Your task to perform on an android device: turn on improve location accuracy Image 0: 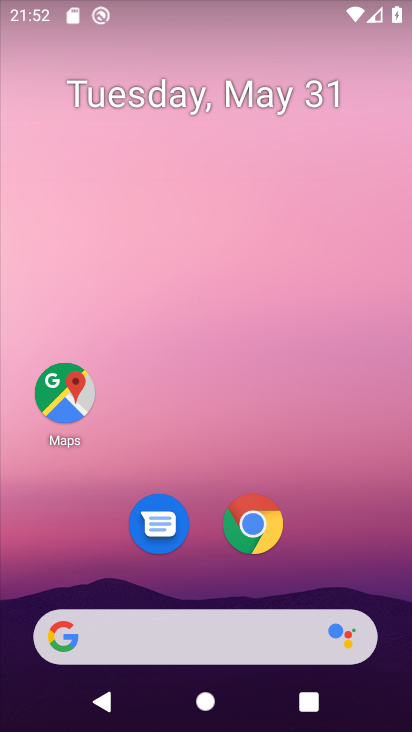
Step 0: drag from (327, 553) to (295, 30)
Your task to perform on an android device: turn on improve location accuracy Image 1: 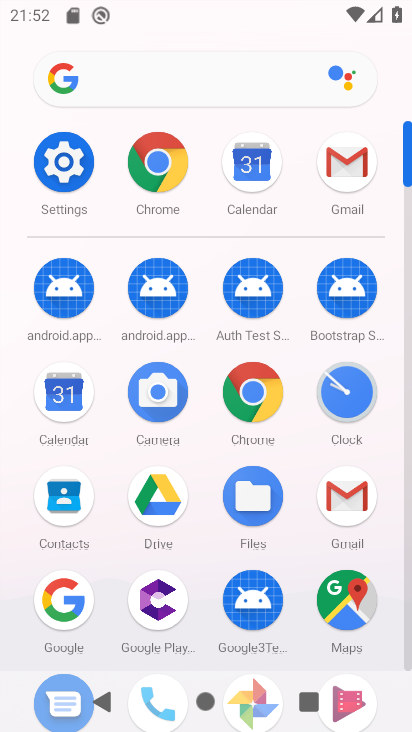
Step 1: click (71, 147)
Your task to perform on an android device: turn on improve location accuracy Image 2: 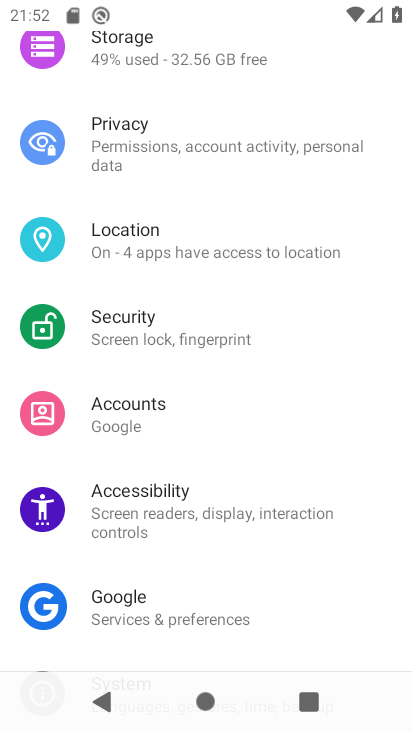
Step 2: drag from (249, 106) to (236, 226)
Your task to perform on an android device: turn on improve location accuracy Image 3: 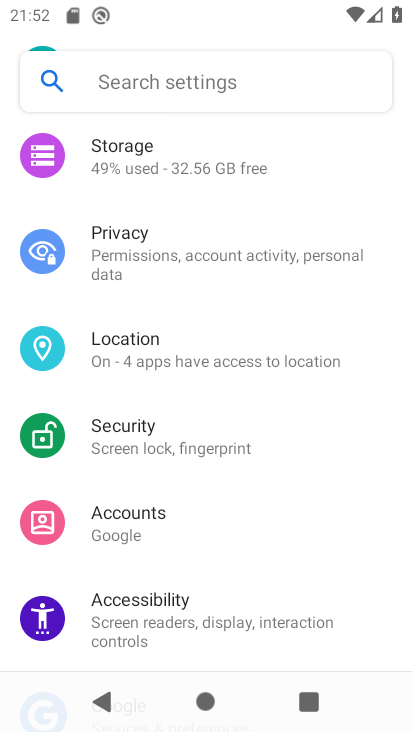
Step 3: click (202, 347)
Your task to perform on an android device: turn on improve location accuracy Image 4: 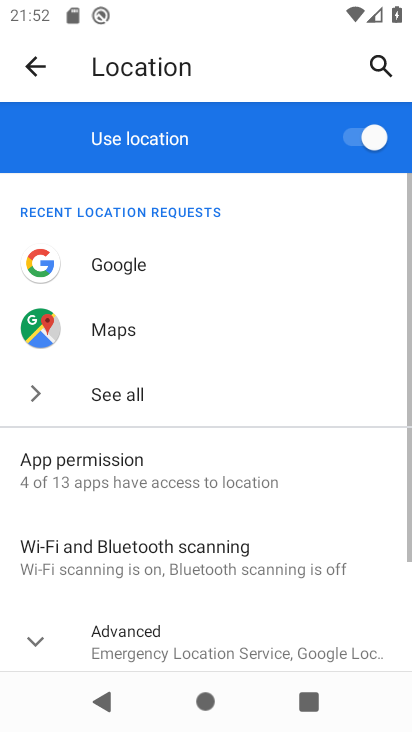
Step 4: drag from (235, 324) to (248, 110)
Your task to perform on an android device: turn on improve location accuracy Image 5: 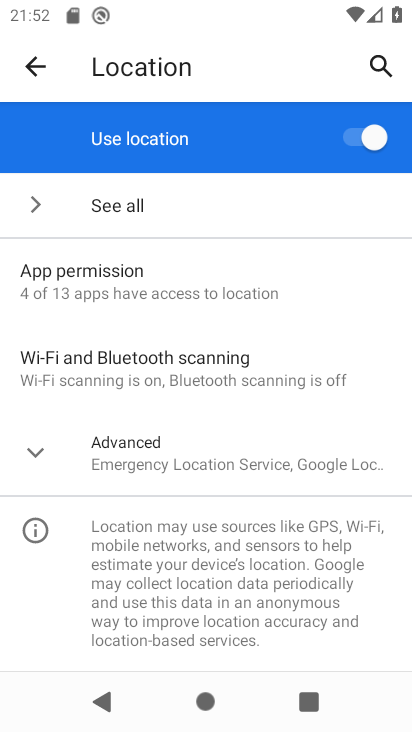
Step 5: click (34, 444)
Your task to perform on an android device: turn on improve location accuracy Image 6: 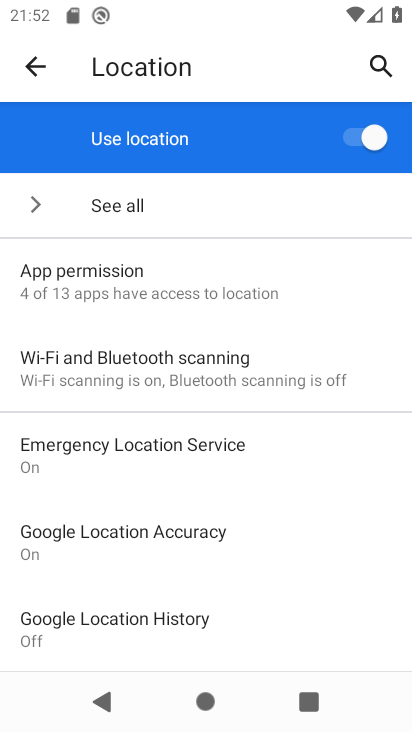
Step 6: click (245, 539)
Your task to perform on an android device: turn on improve location accuracy Image 7: 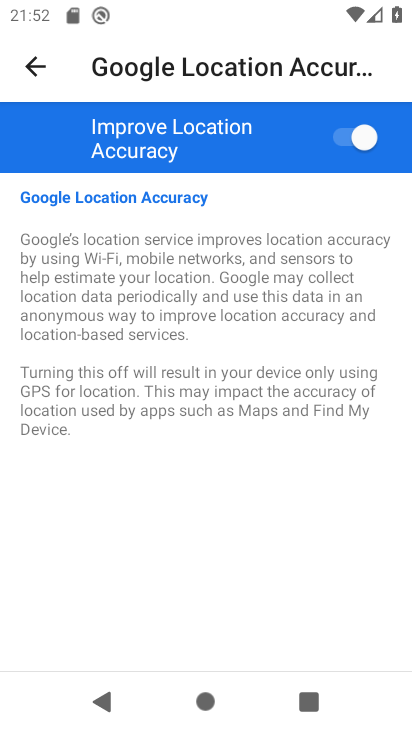
Step 7: task complete